Your task to perform on an android device: search for starred emails in the gmail app Image 0: 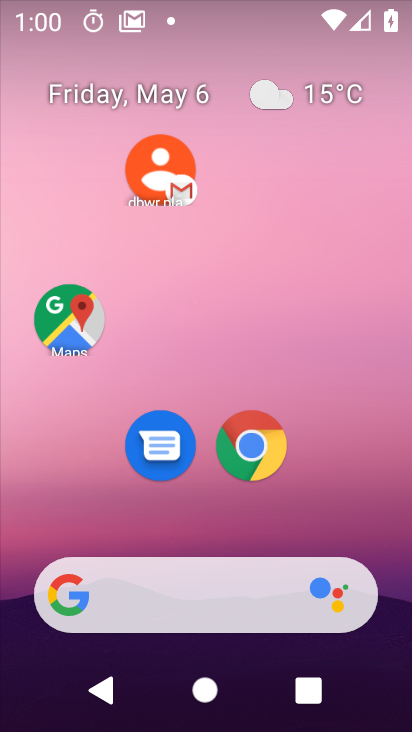
Step 0: drag from (376, 680) to (236, 135)
Your task to perform on an android device: search for starred emails in the gmail app Image 1: 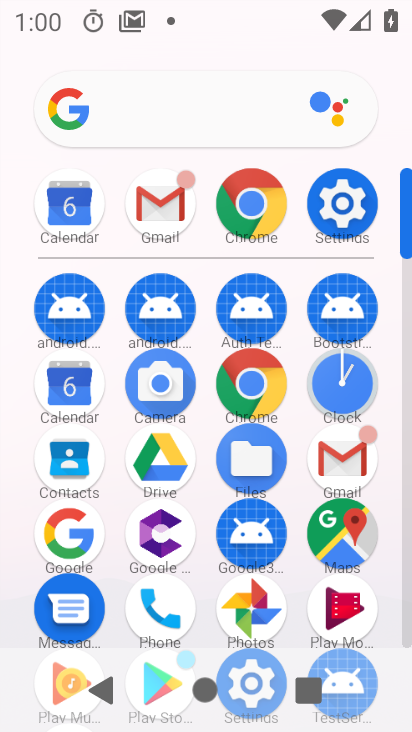
Step 1: click (334, 464)
Your task to perform on an android device: search for starred emails in the gmail app Image 2: 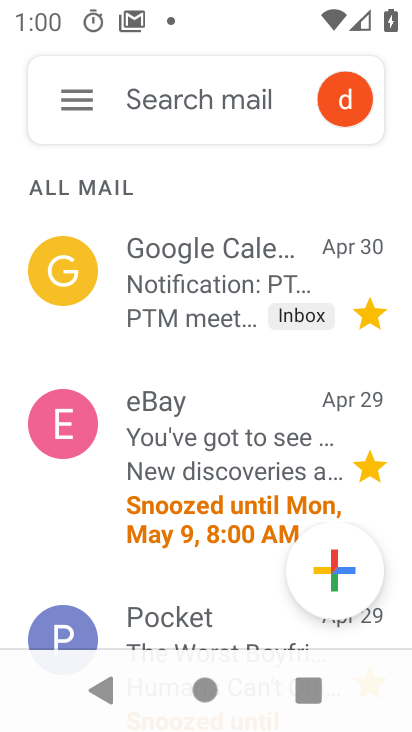
Step 2: click (194, 507)
Your task to perform on an android device: search for starred emails in the gmail app Image 3: 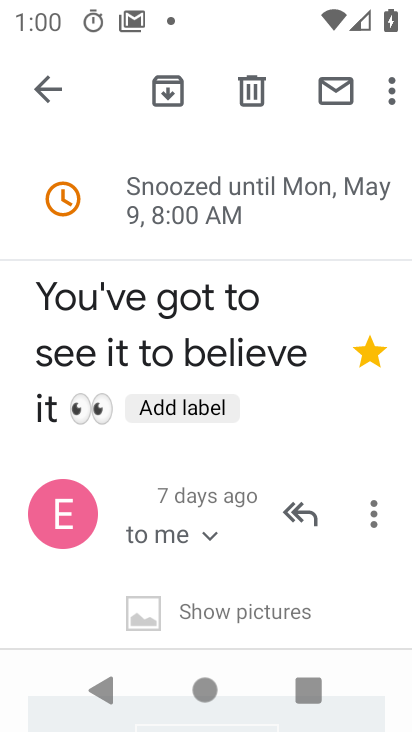
Step 3: click (45, 77)
Your task to perform on an android device: search for starred emails in the gmail app Image 4: 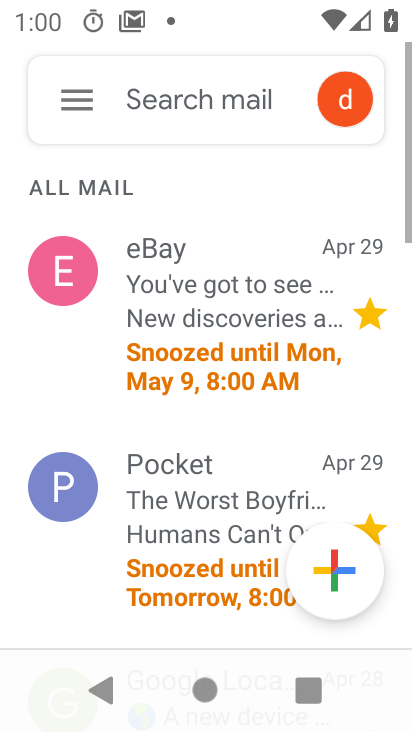
Step 4: task complete